Your task to perform on an android device: see creations saved in the google photos Image 0: 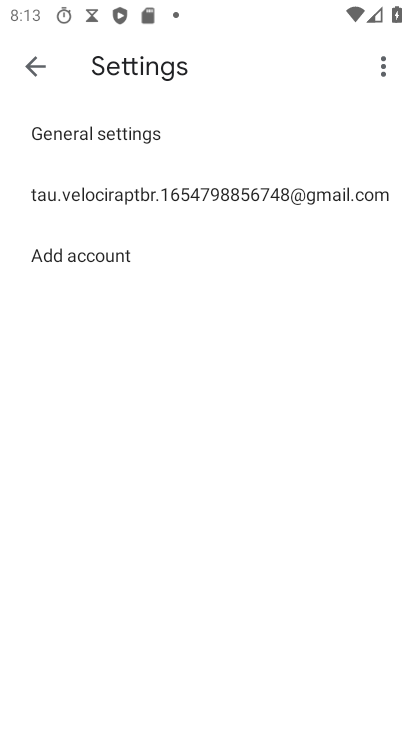
Step 0: press home button
Your task to perform on an android device: see creations saved in the google photos Image 1: 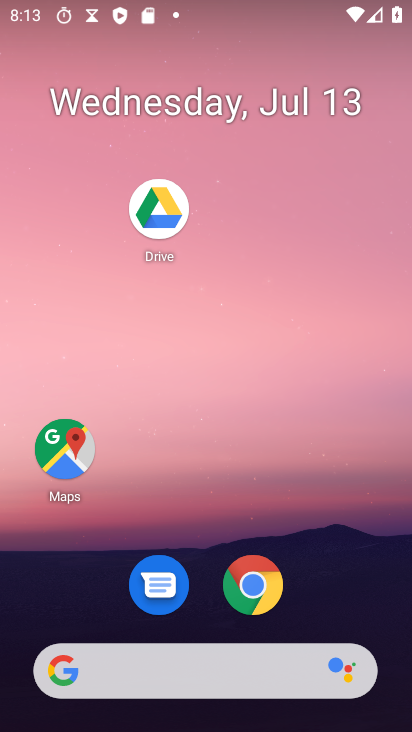
Step 1: drag from (185, 667) to (307, 127)
Your task to perform on an android device: see creations saved in the google photos Image 2: 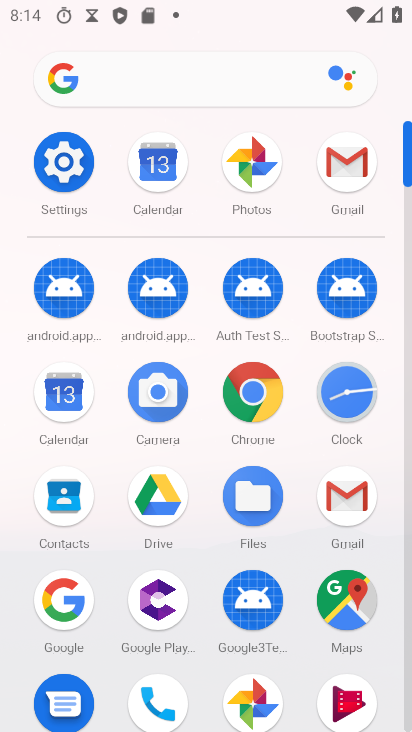
Step 2: click (252, 690)
Your task to perform on an android device: see creations saved in the google photos Image 3: 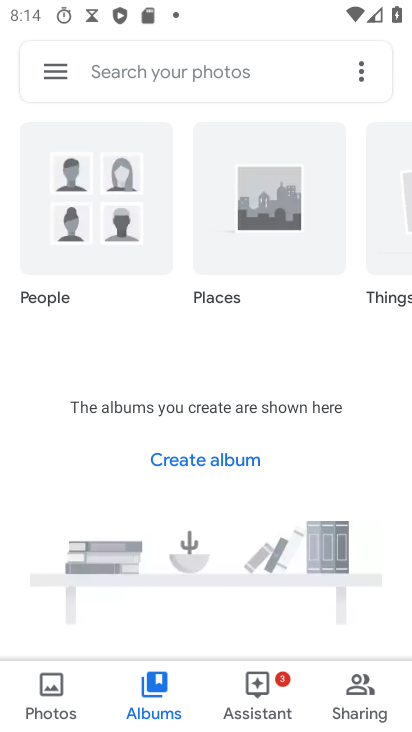
Step 3: click (179, 57)
Your task to perform on an android device: see creations saved in the google photos Image 4: 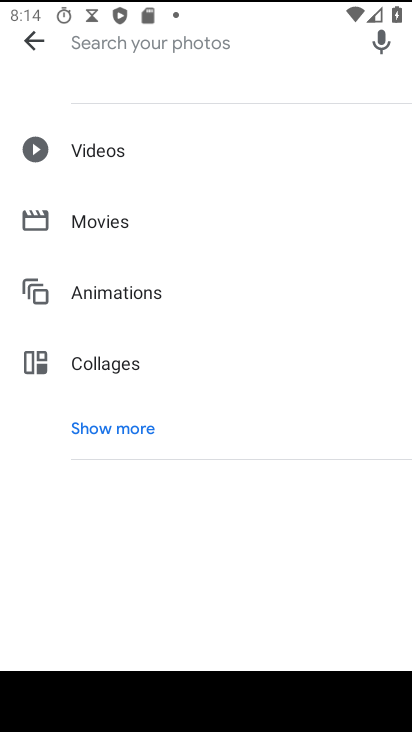
Step 4: click (100, 428)
Your task to perform on an android device: see creations saved in the google photos Image 5: 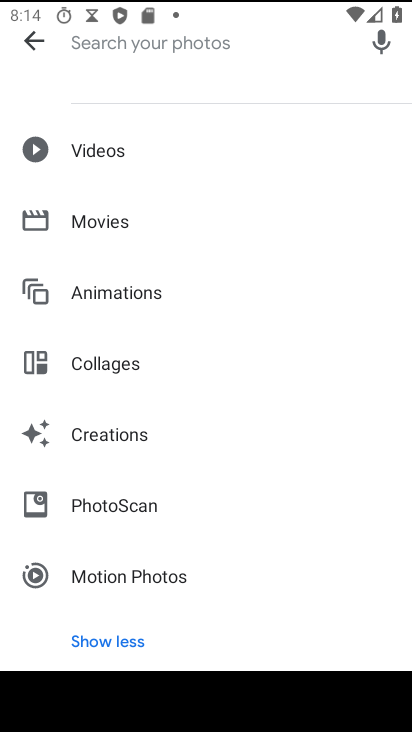
Step 5: click (117, 428)
Your task to perform on an android device: see creations saved in the google photos Image 6: 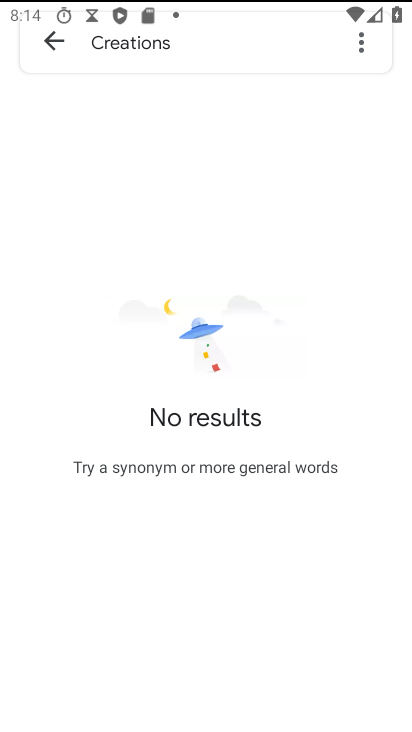
Step 6: task complete